Your task to perform on an android device: What is the capital of Spain? Image 0: 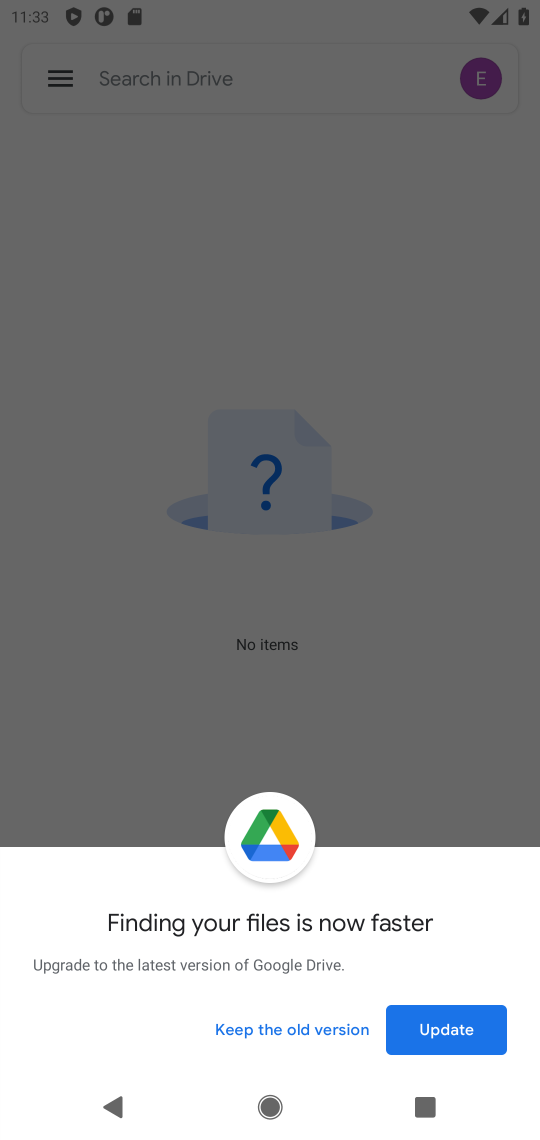
Step 0: press home button
Your task to perform on an android device: What is the capital of Spain? Image 1: 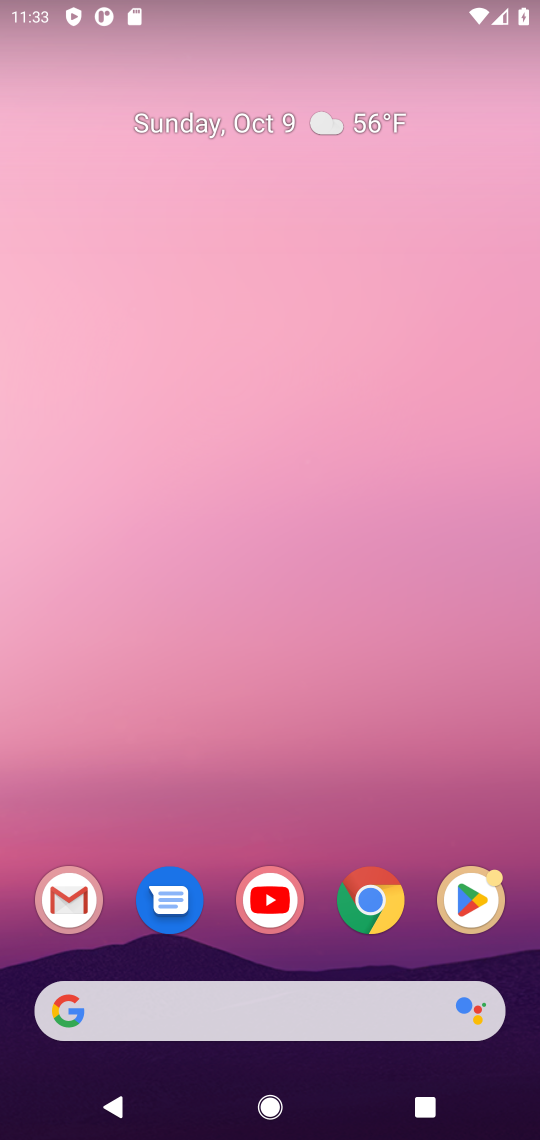
Step 1: click (279, 1008)
Your task to perform on an android device: What is the capital of Spain? Image 2: 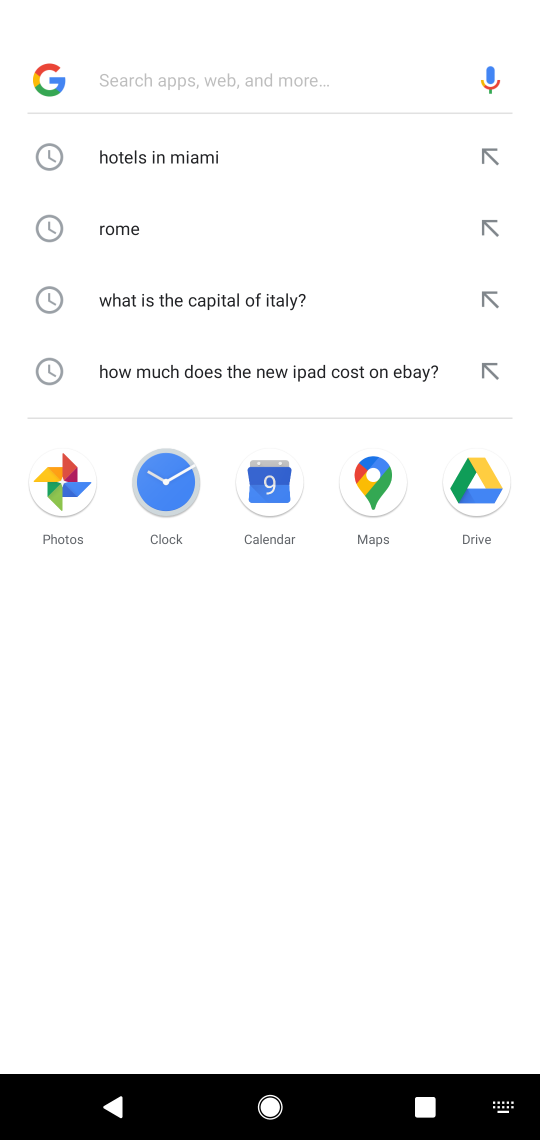
Step 2: type "what is the capital of spain"
Your task to perform on an android device: What is the capital of Spain? Image 3: 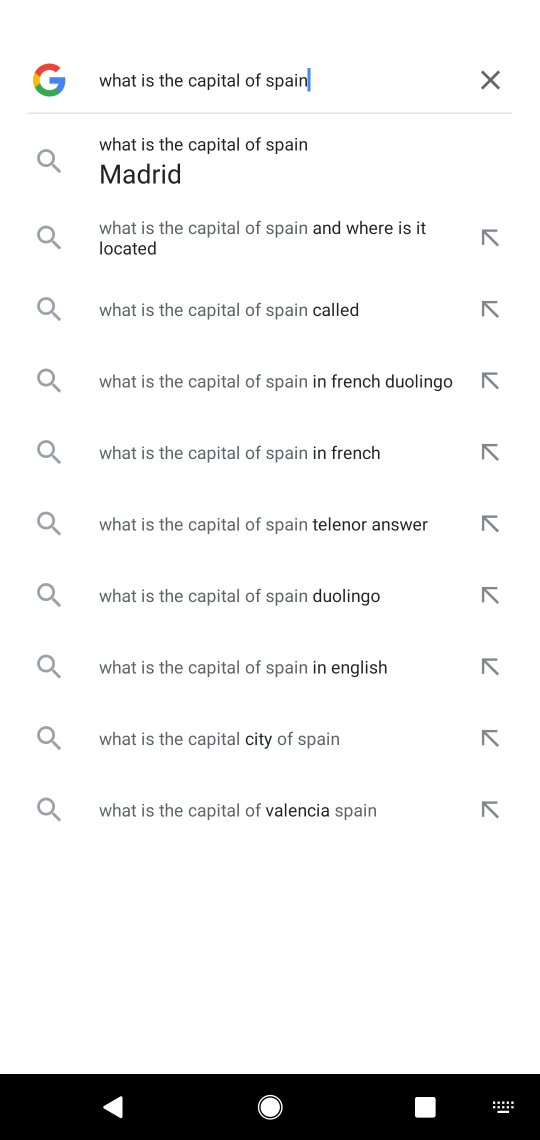
Step 3: type ""
Your task to perform on an android device: What is the capital of Spain? Image 4: 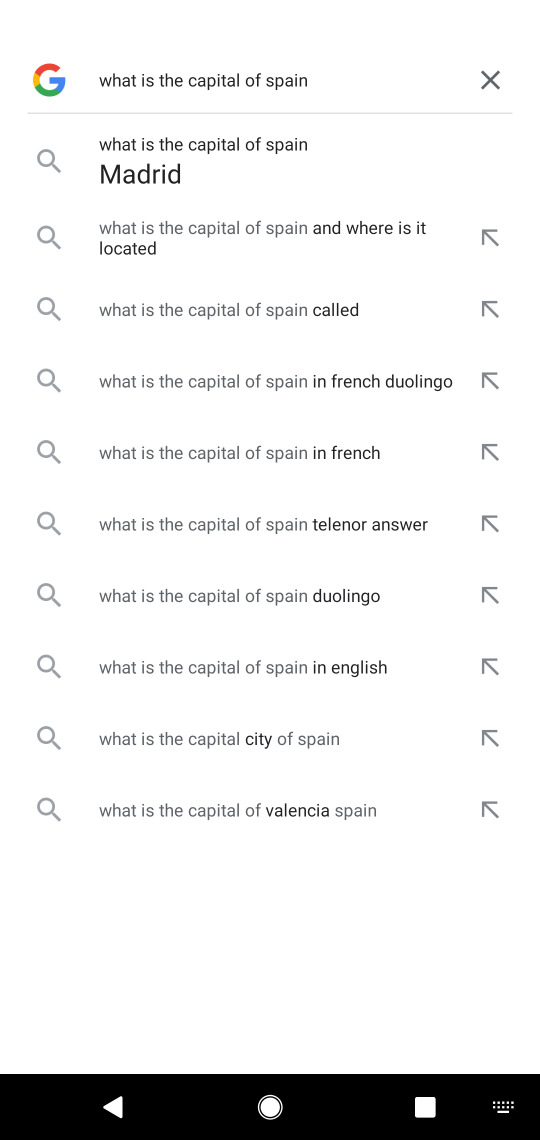
Step 4: click (276, 184)
Your task to perform on an android device: What is the capital of Spain? Image 5: 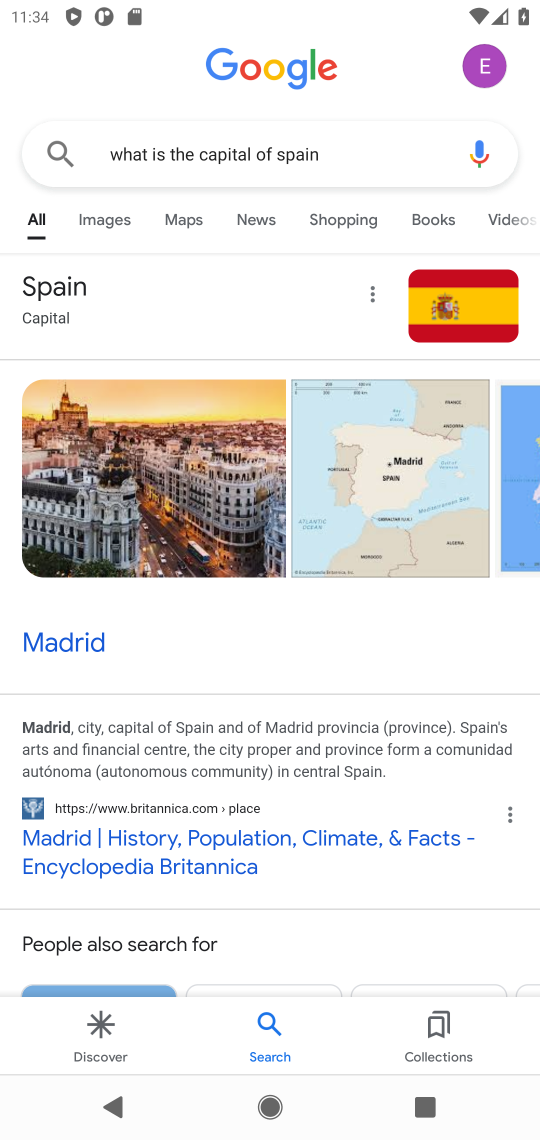
Step 5: drag from (268, 865) to (289, 398)
Your task to perform on an android device: What is the capital of Spain? Image 6: 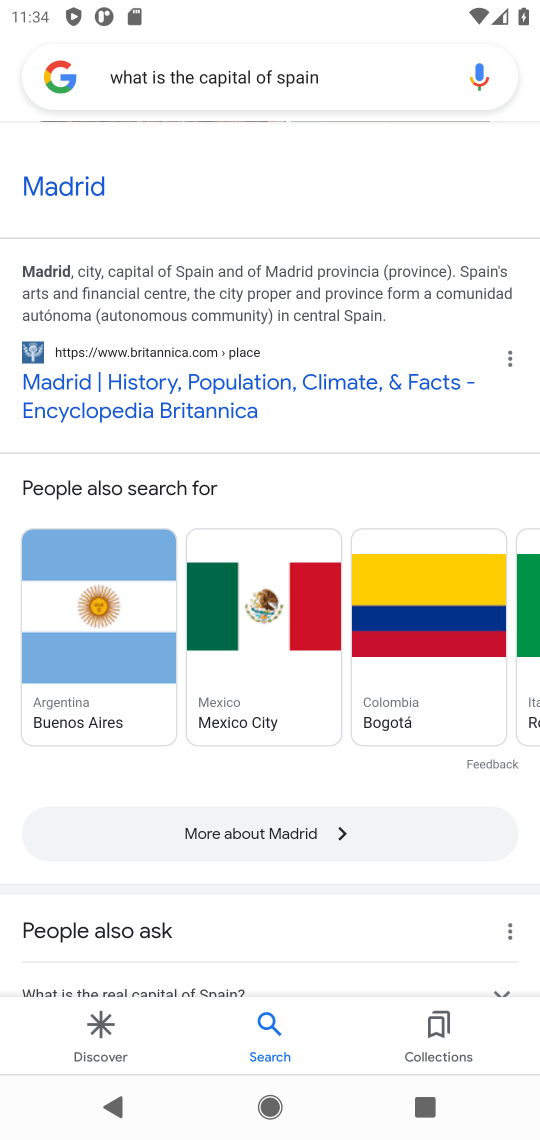
Step 6: click (190, 389)
Your task to perform on an android device: What is the capital of Spain? Image 7: 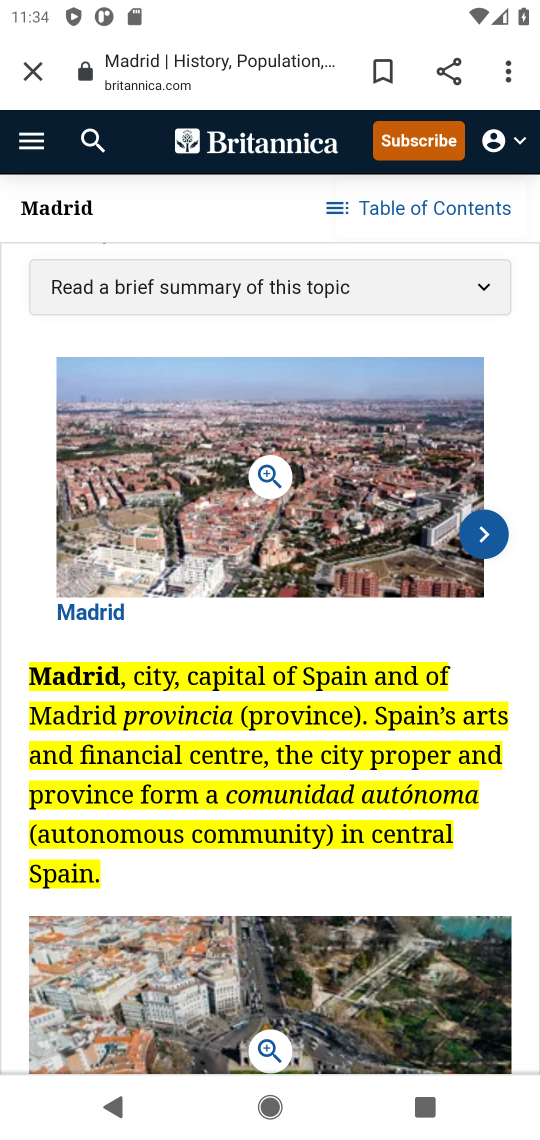
Step 7: drag from (189, 948) to (262, 464)
Your task to perform on an android device: What is the capital of Spain? Image 8: 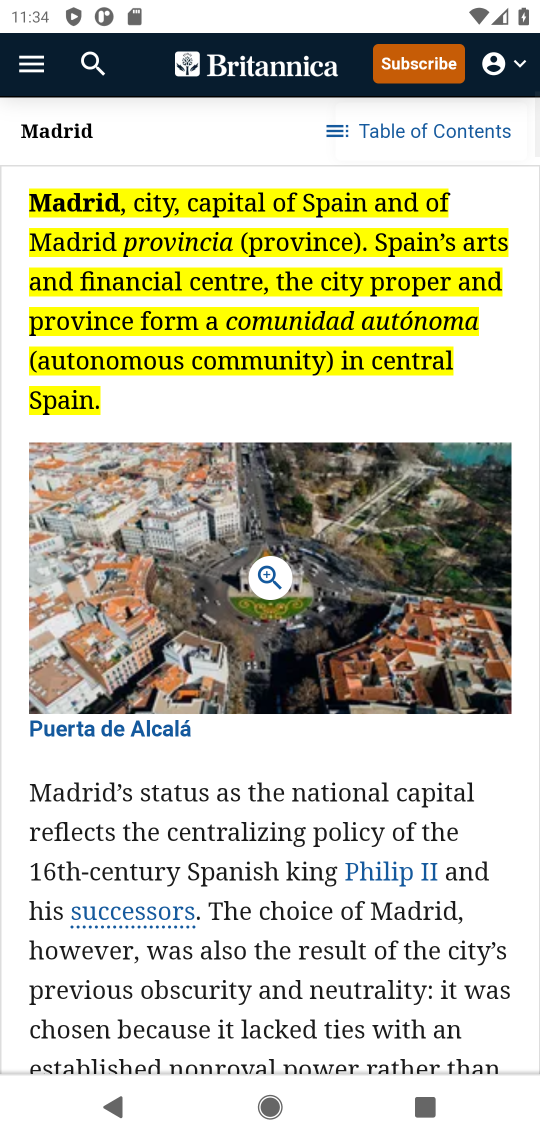
Step 8: drag from (279, 785) to (304, 419)
Your task to perform on an android device: What is the capital of Spain? Image 9: 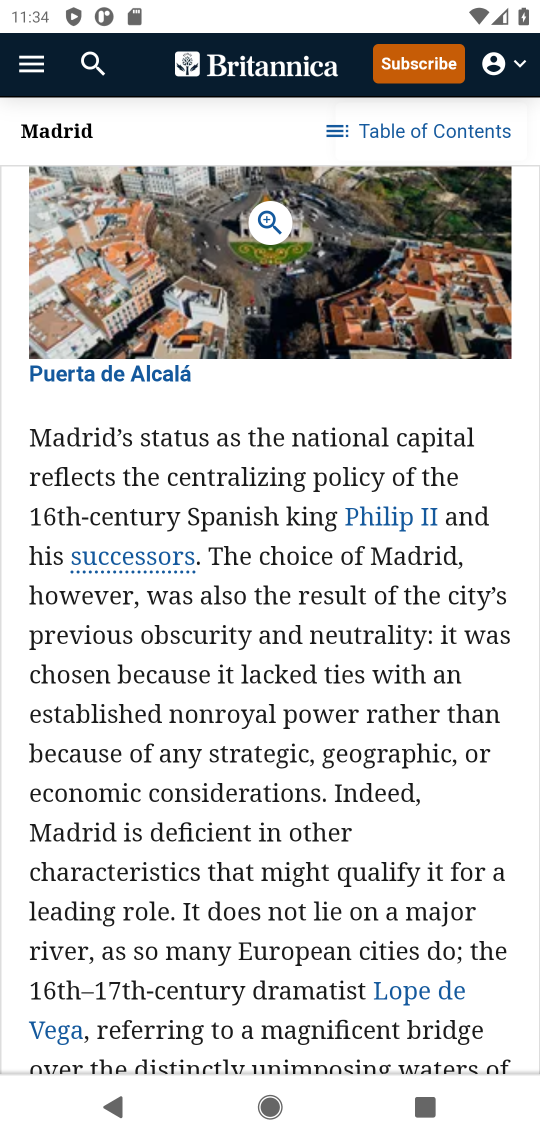
Step 9: drag from (313, 765) to (302, 316)
Your task to perform on an android device: What is the capital of Spain? Image 10: 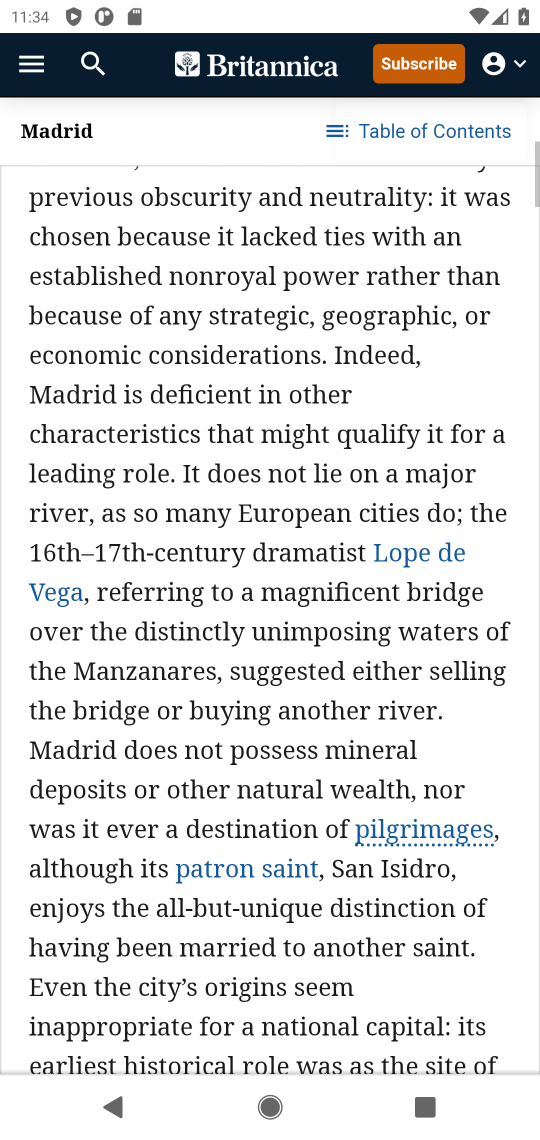
Step 10: drag from (299, 779) to (281, 334)
Your task to perform on an android device: What is the capital of Spain? Image 11: 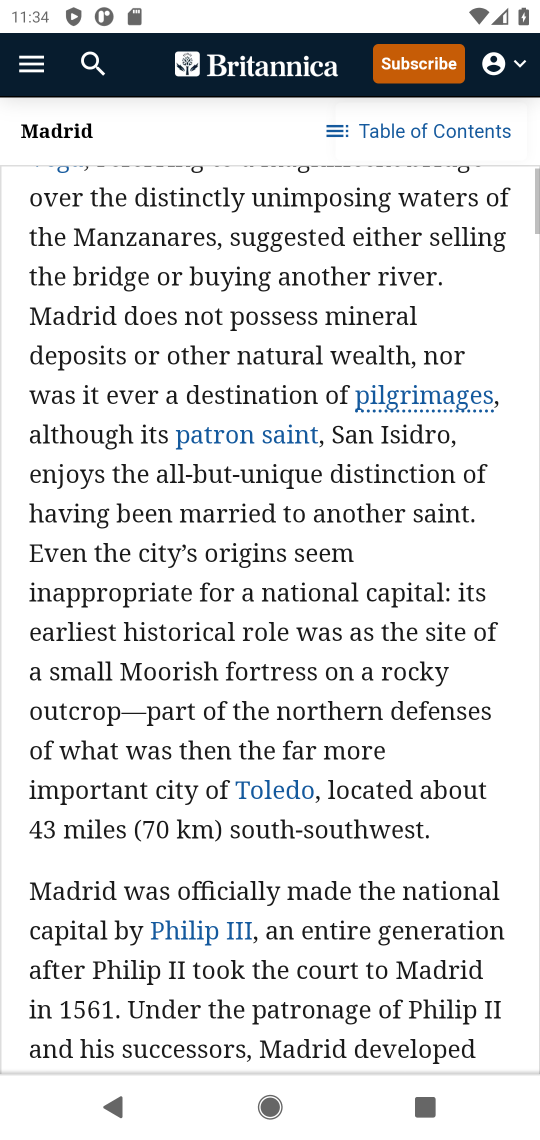
Step 11: drag from (318, 785) to (296, 290)
Your task to perform on an android device: What is the capital of Spain? Image 12: 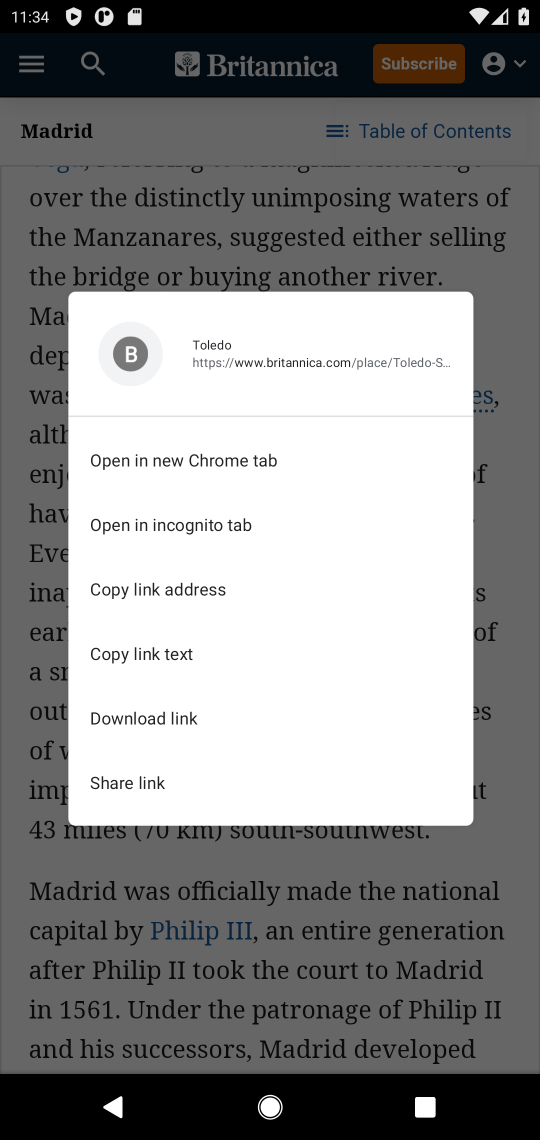
Step 12: drag from (373, 804) to (350, 227)
Your task to perform on an android device: What is the capital of Spain? Image 13: 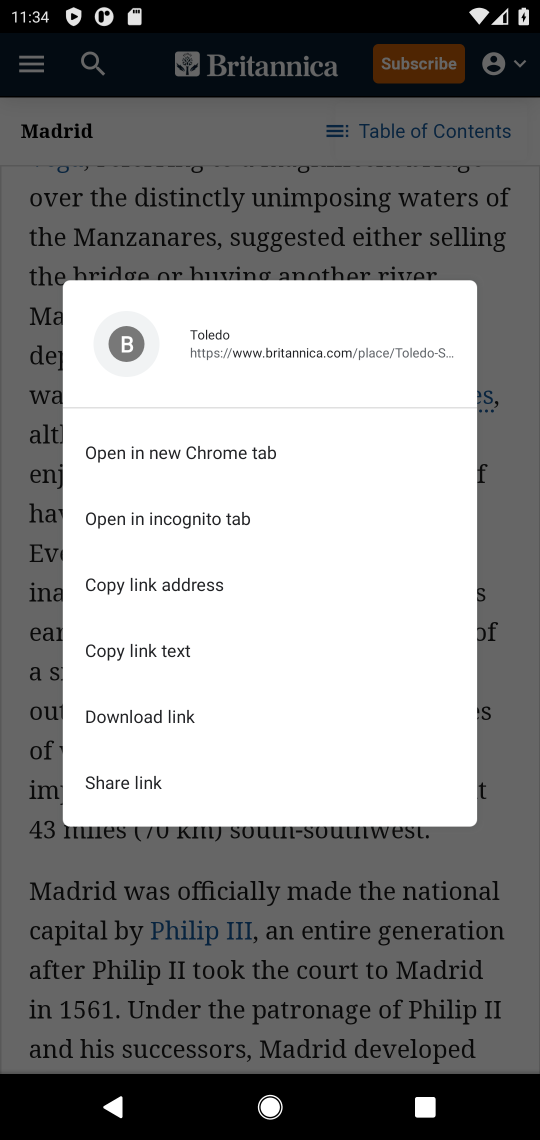
Step 13: click (304, 211)
Your task to perform on an android device: What is the capital of Spain? Image 14: 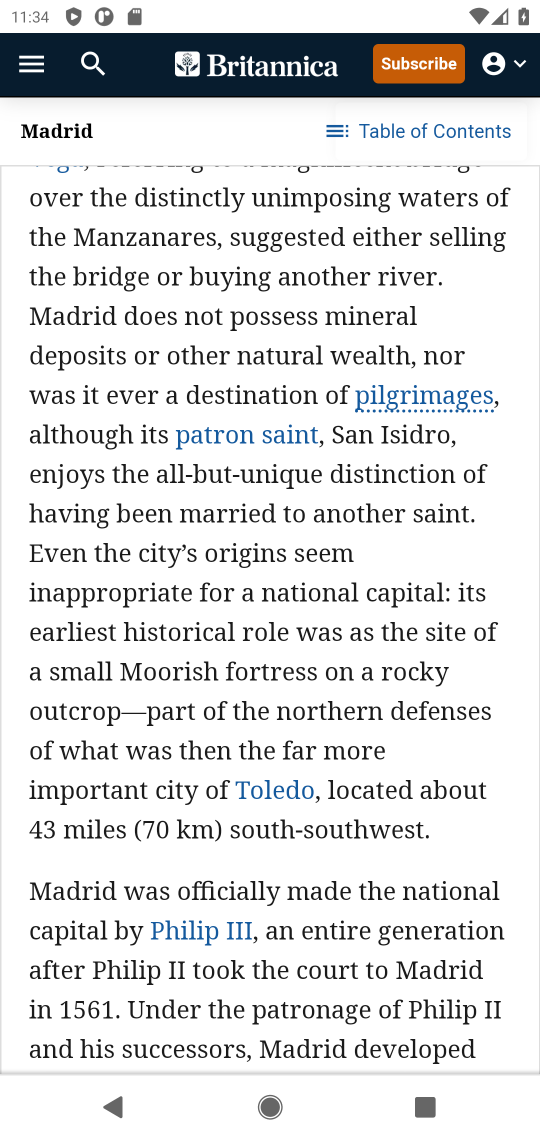
Step 14: drag from (369, 848) to (439, 192)
Your task to perform on an android device: What is the capital of Spain? Image 15: 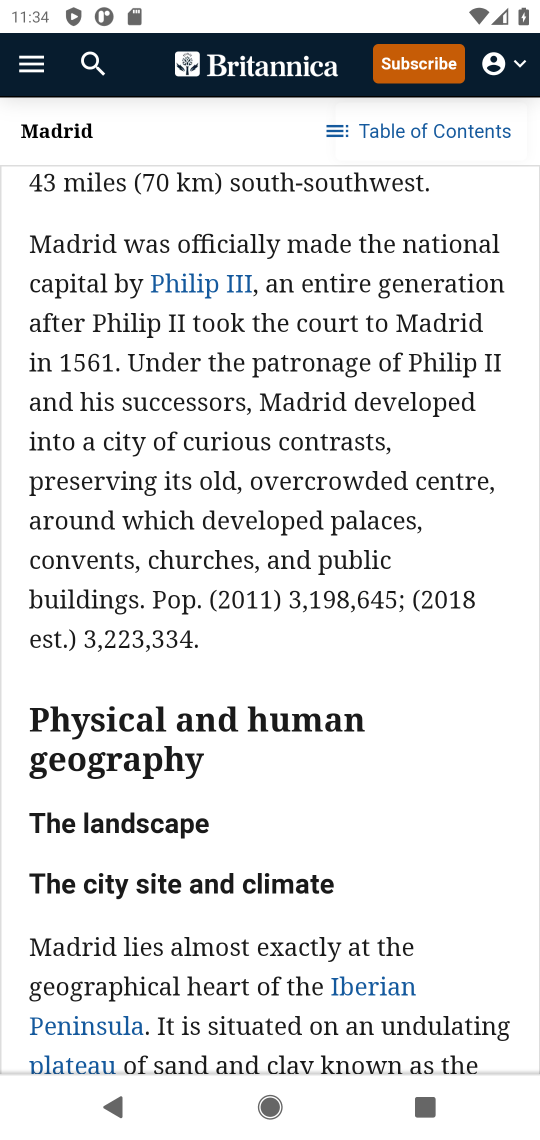
Step 15: drag from (429, 897) to (422, 240)
Your task to perform on an android device: What is the capital of Spain? Image 16: 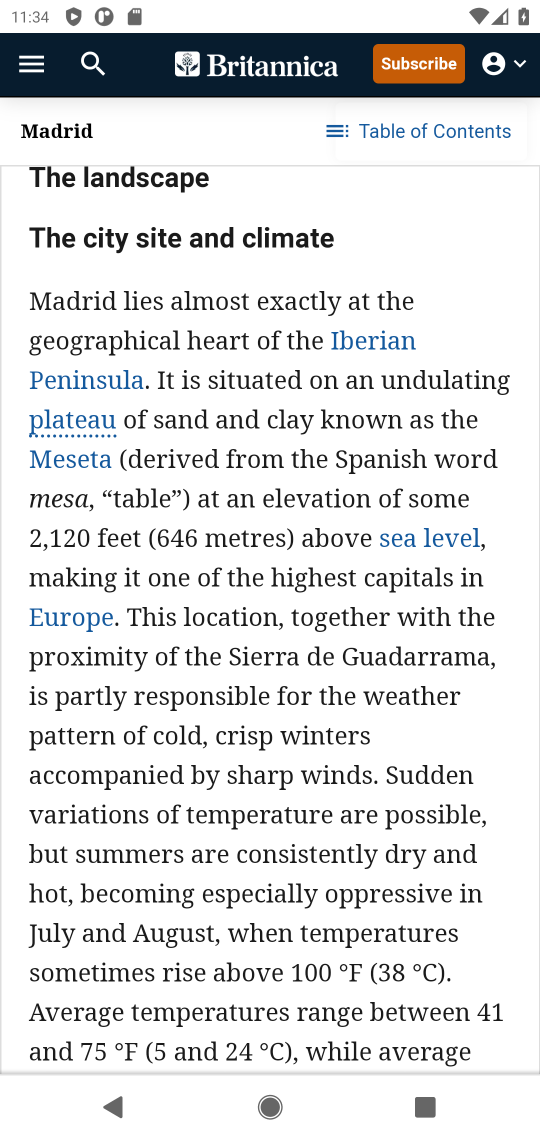
Step 16: drag from (398, 814) to (380, 211)
Your task to perform on an android device: What is the capital of Spain? Image 17: 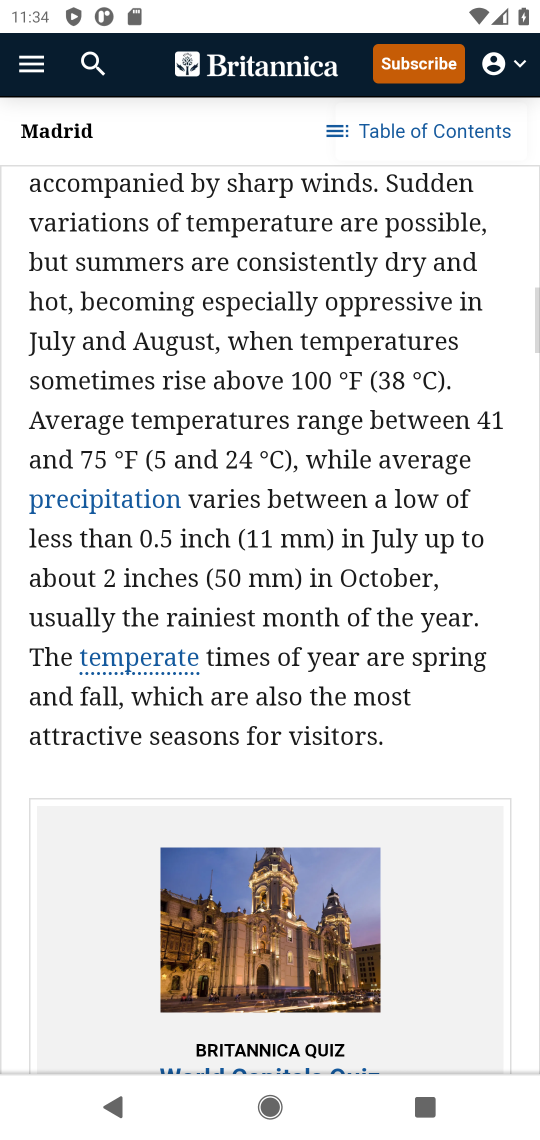
Step 17: drag from (439, 874) to (468, 251)
Your task to perform on an android device: What is the capital of Spain? Image 18: 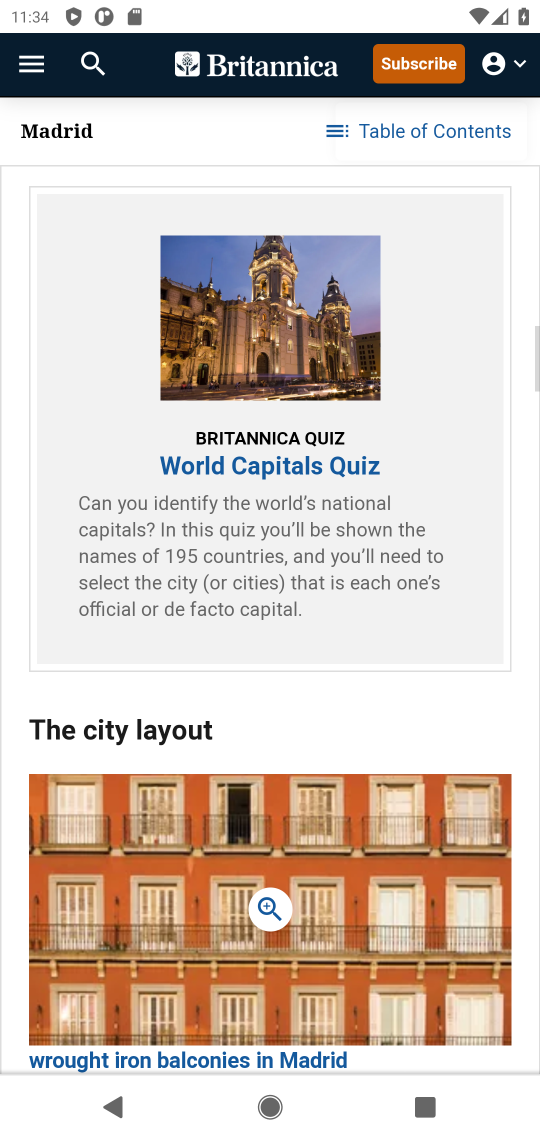
Step 18: drag from (445, 630) to (462, 272)
Your task to perform on an android device: What is the capital of Spain? Image 19: 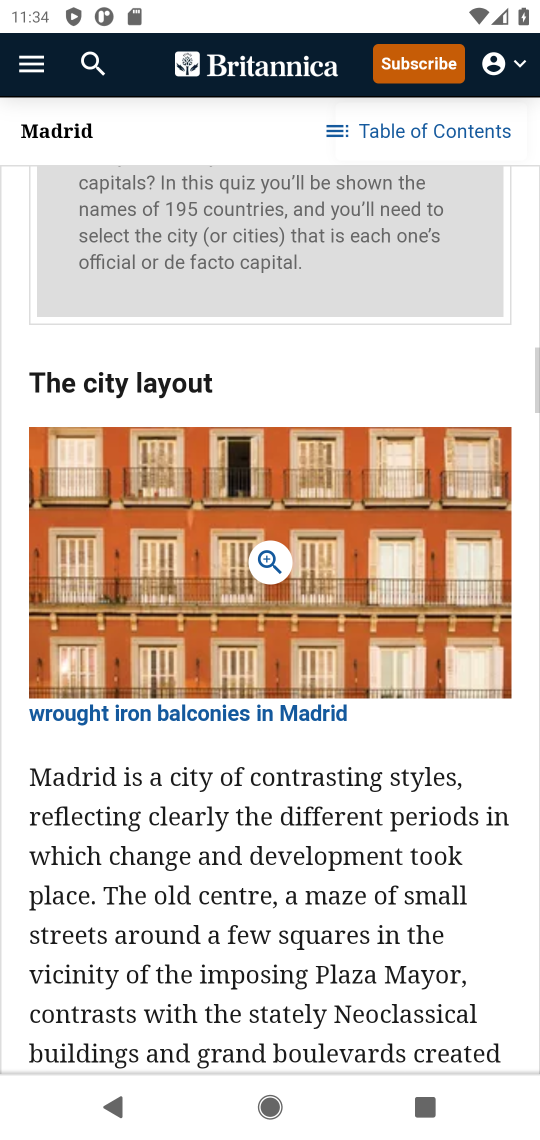
Step 19: drag from (430, 916) to (393, 293)
Your task to perform on an android device: What is the capital of Spain? Image 20: 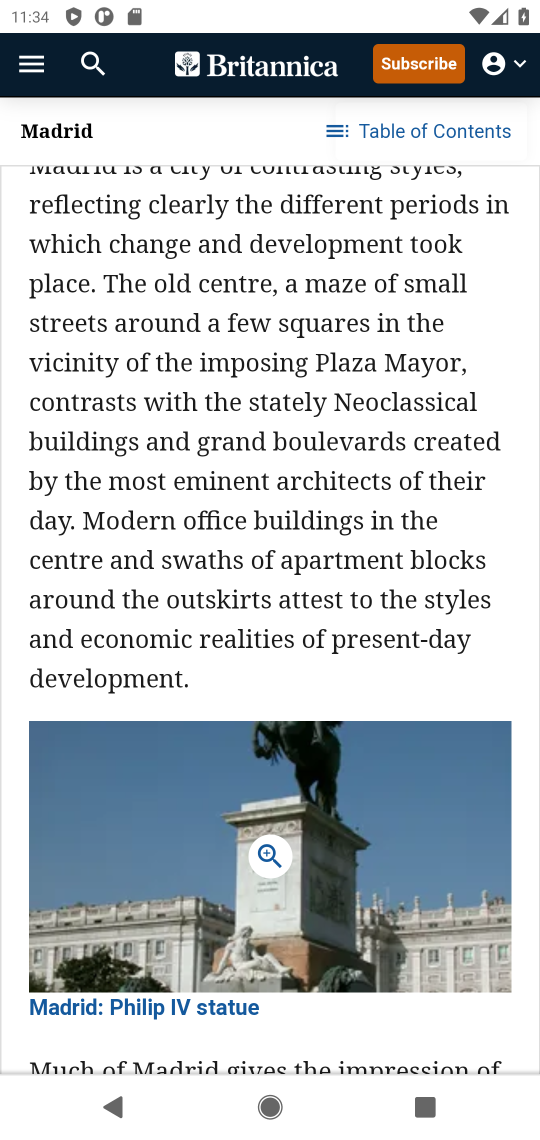
Step 20: drag from (340, 680) to (372, 298)
Your task to perform on an android device: What is the capital of Spain? Image 21: 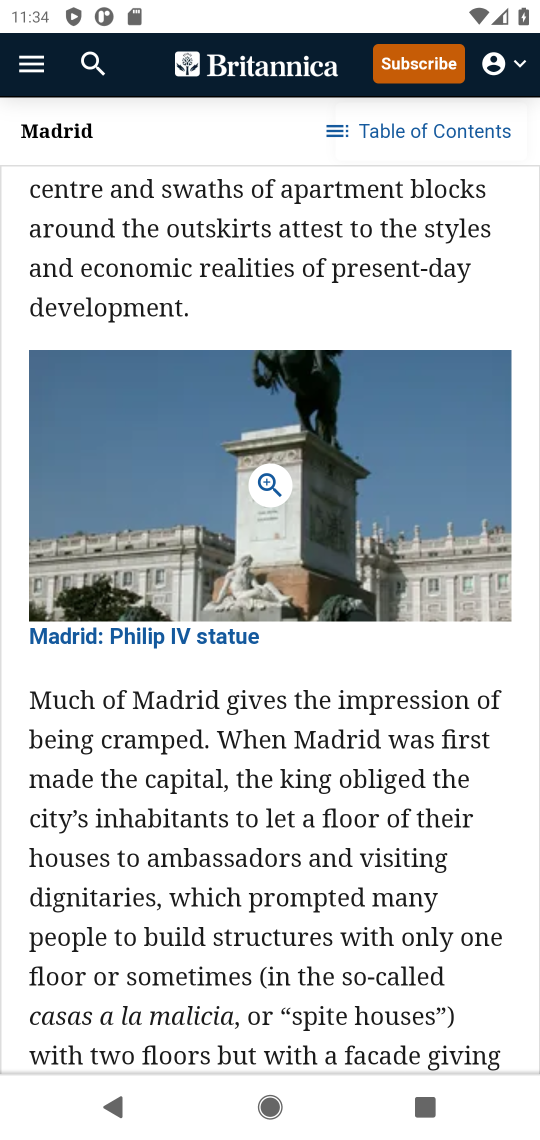
Step 21: drag from (453, 948) to (487, 375)
Your task to perform on an android device: What is the capital of Spain? Image 22: 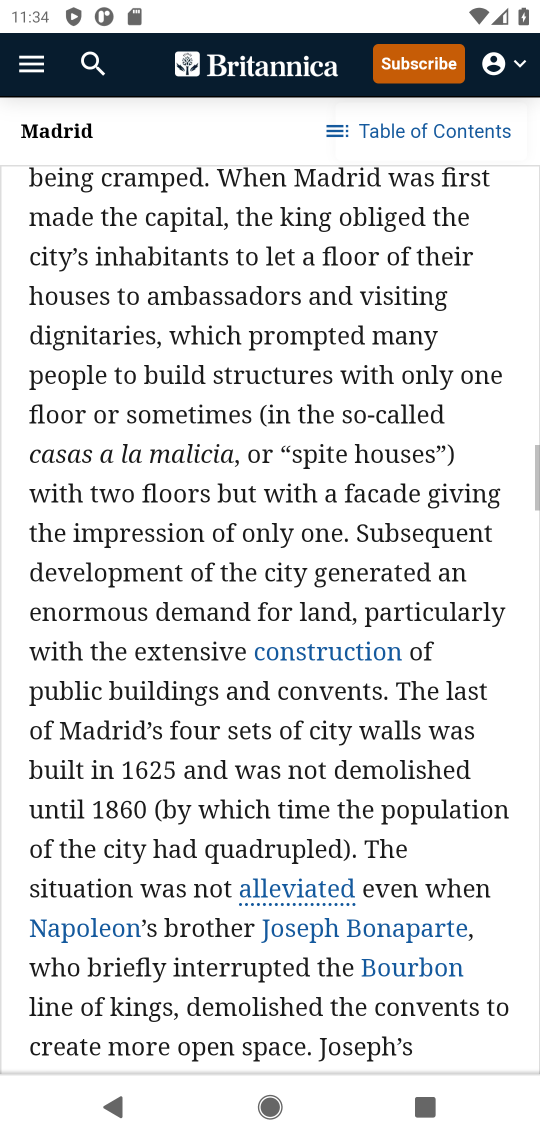
Step 22: drag from (418, 804) to (479, 383)
Your task to perform on an android device: What is the capital of Spain? Image 23: 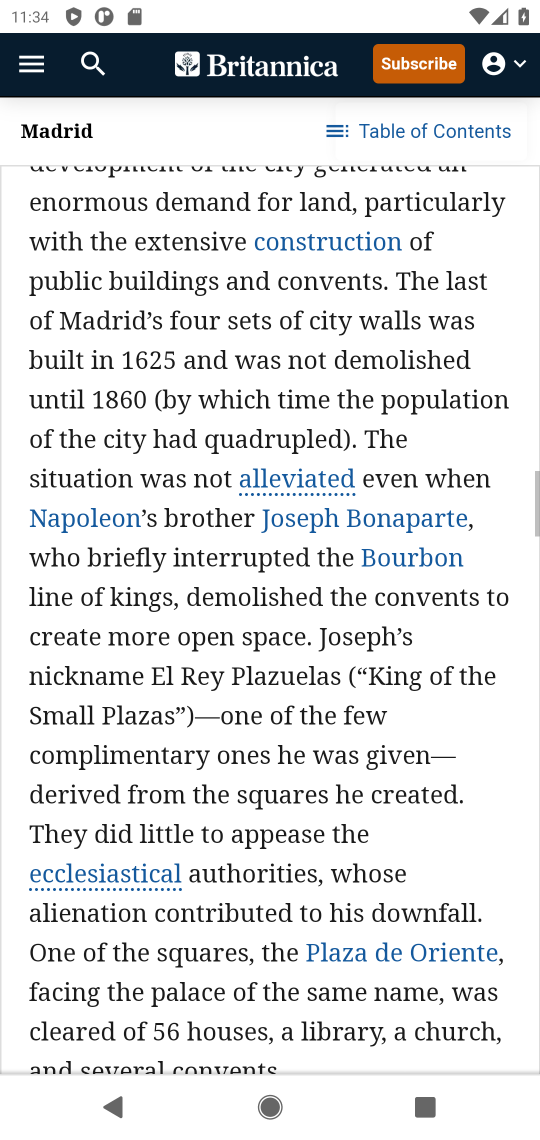
Step 23: drag from (430, 778) to (438, 441)
Your task to perform on an android device: What is the capital of Spain? Image 24: 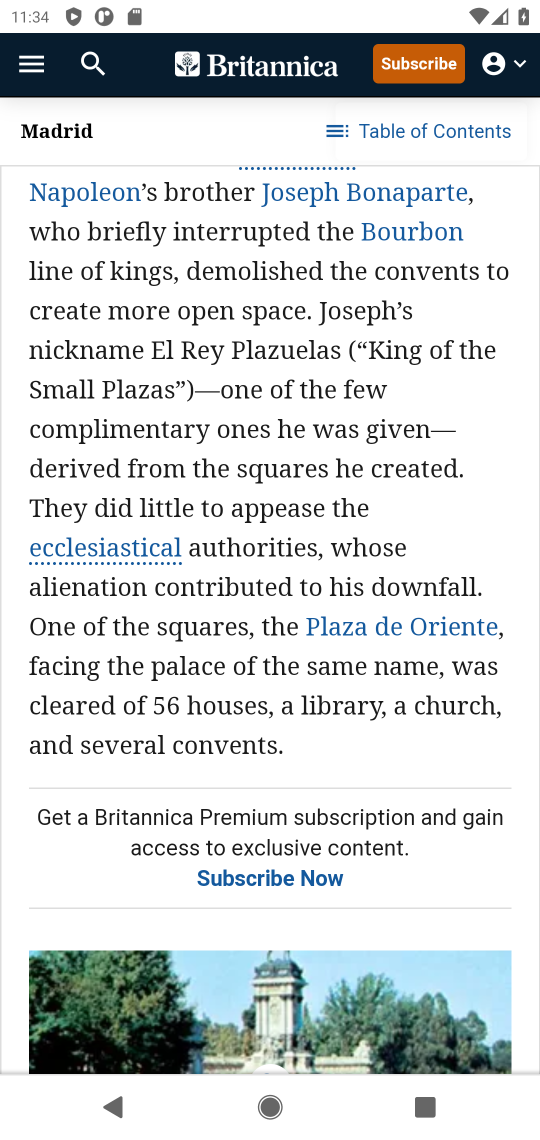
Step 24: drag from (323, 692) to (465, 197)
Your task to perform on an android device: What is the capital of Spain? Image 25: 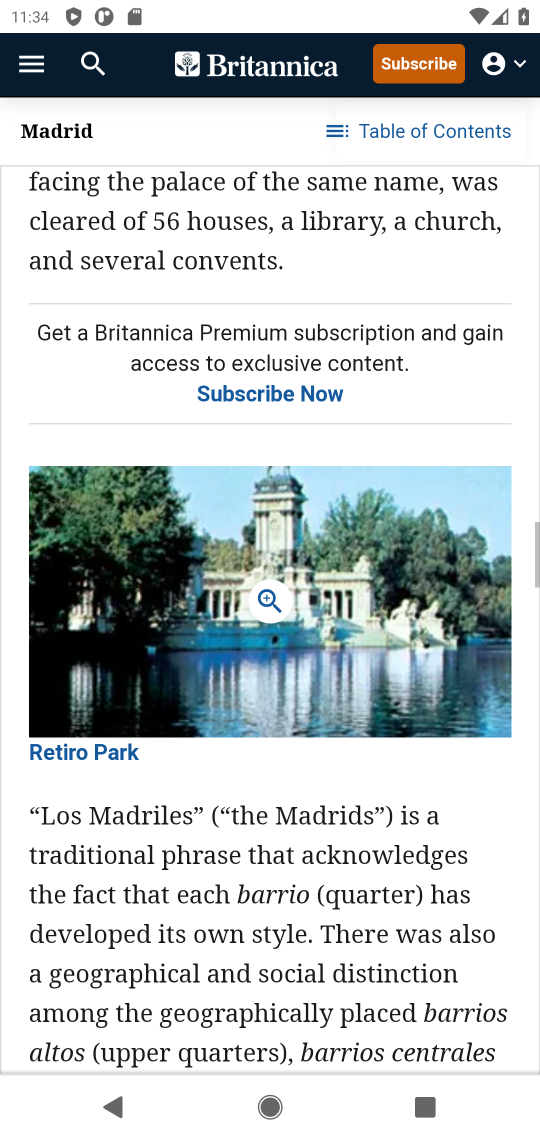
Step 25: drag from (322, 622) to (360, 326)
Your task to perform on an android device: What is the capital of Spain? Image 26: 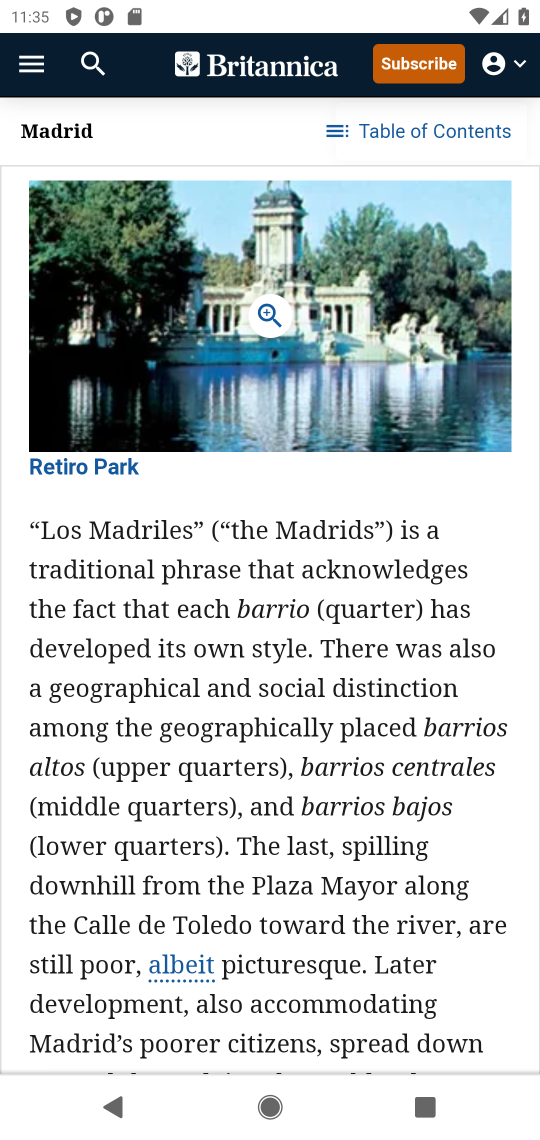
Step 26: drag from (197, 731) to (332, 403)
Your task to perform on an android device: What is the capital of Spain? Image 27: 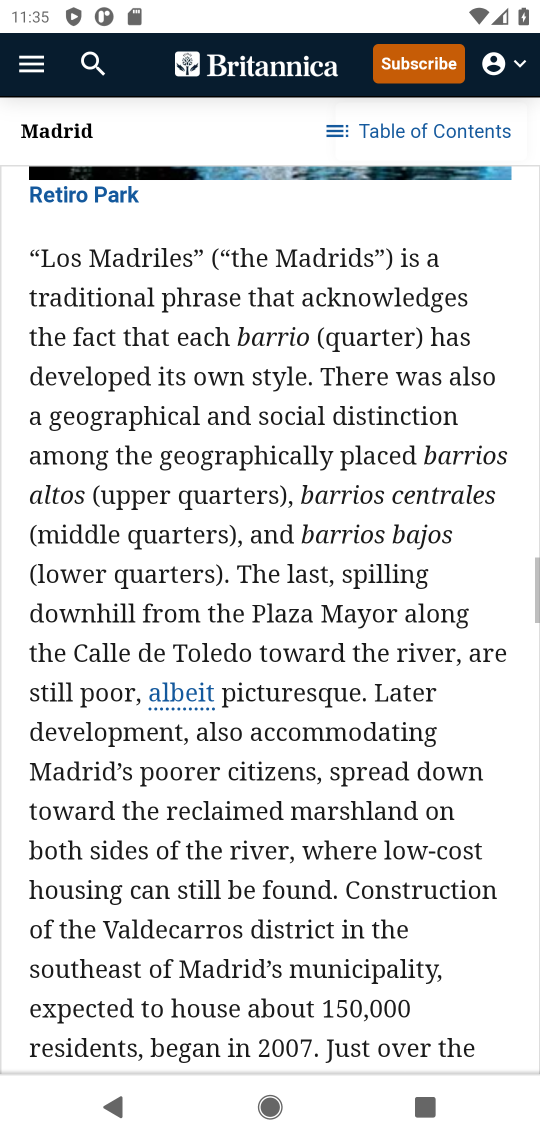
Step 27: drag from (298, 802) to (348, 376)
Your task to perform on an android device: What is the capital of Spain? Image 28: 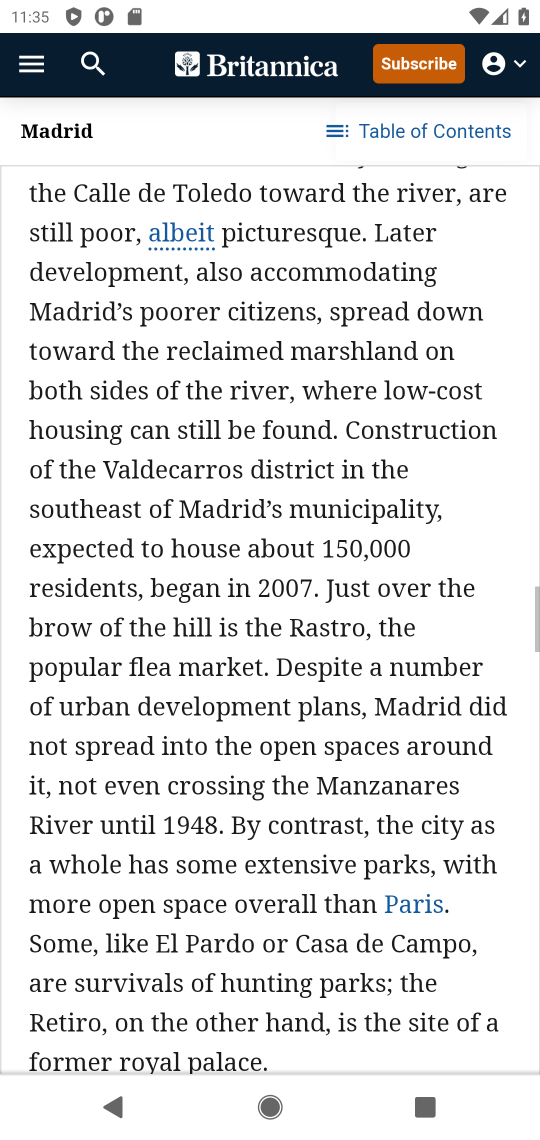
Step 28: drag from (344, 673) to (363, 408)
Your task to perform on an android device: What is the capital of Spain? Image 29: 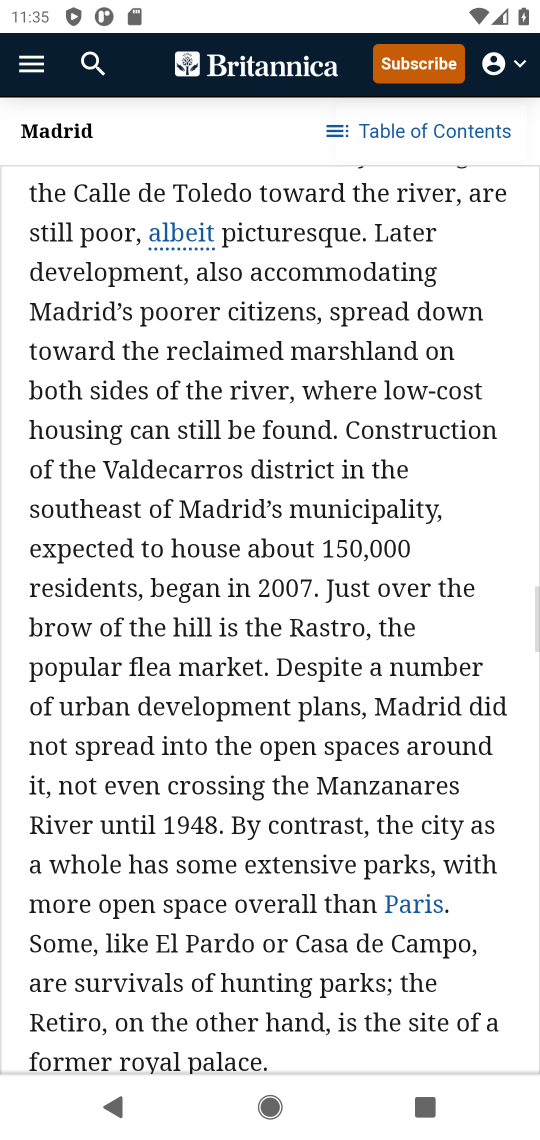
Step 29: drag from (307, 750) to (312, 593)
Your task to perform on an android device: What is the capital of Spain? Image 30: 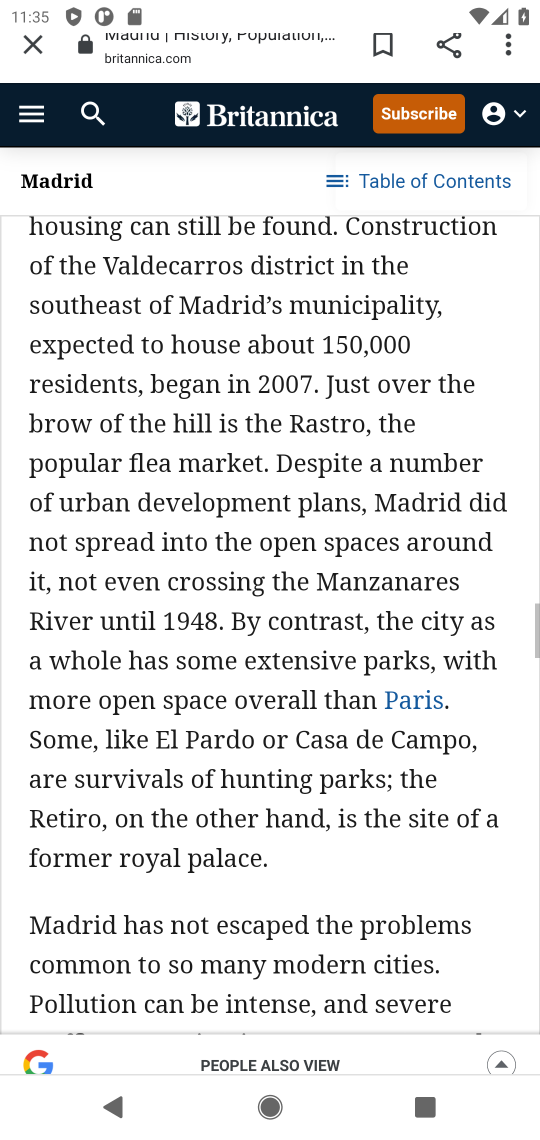
Step 30: drag from (298, 882) to (335, 551)
Your task to perform on an android device: What is the capital of Spain? Image 31: 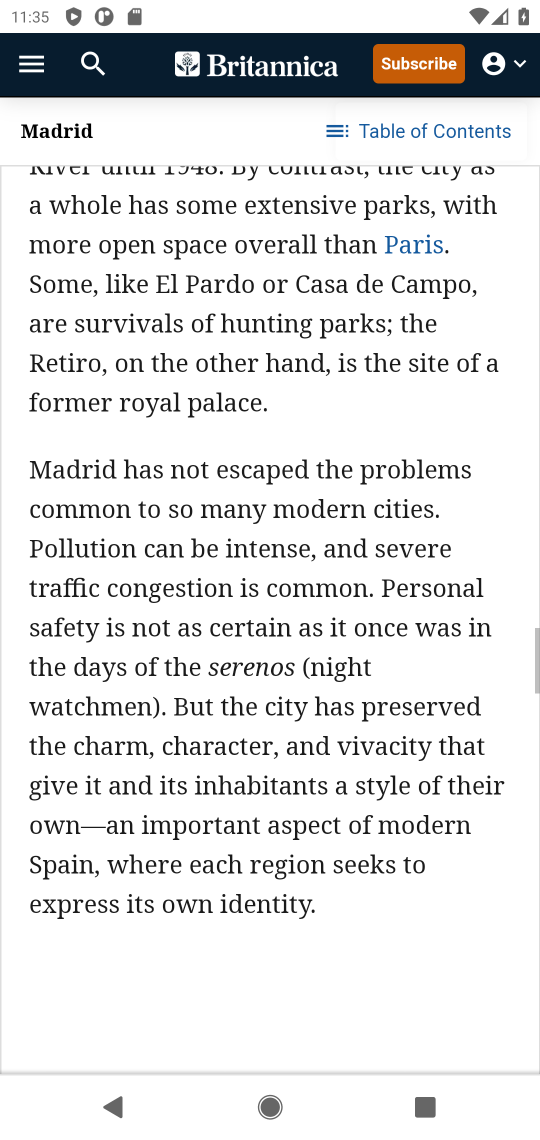
Step 31: drag from (375, 822) to (406, 262)
Your task to perform on an android device: What is the capital of Spain? Image 32: 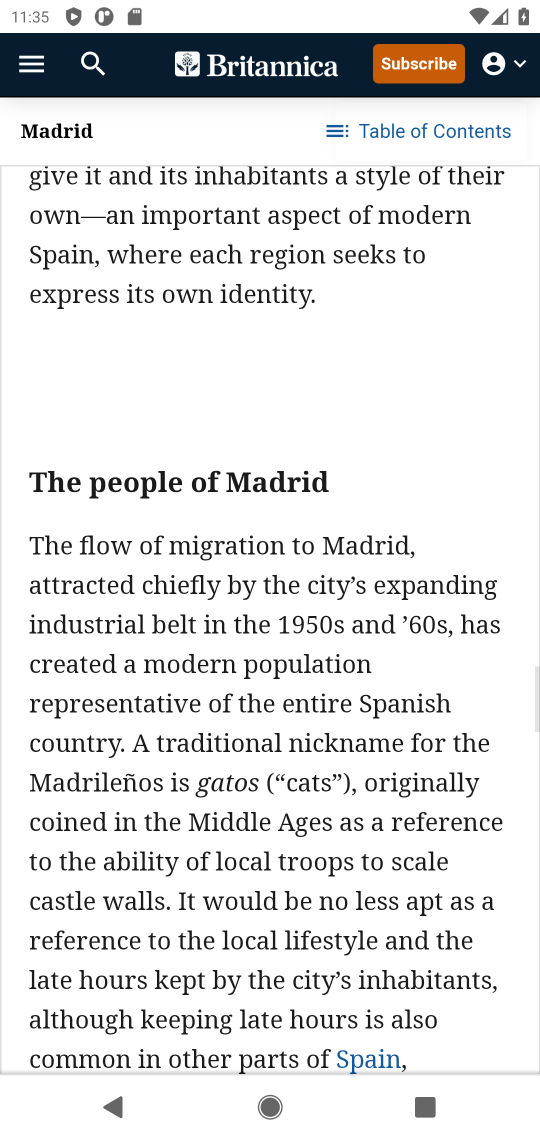
Step 32: drag from (363, 942) to (465, 190)
Your task to perform on an android device: What is the capital of Spain? Image 33: 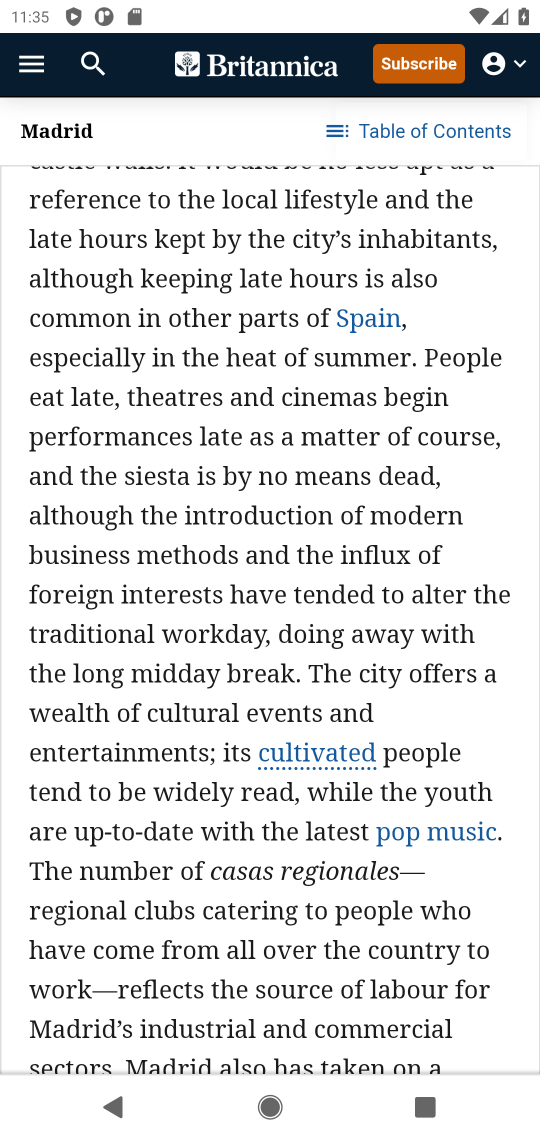
Step 33: drag from (373, 886) to (461, 182)
Your task to perform on an android device: What is the capital of Spain? Image 34: 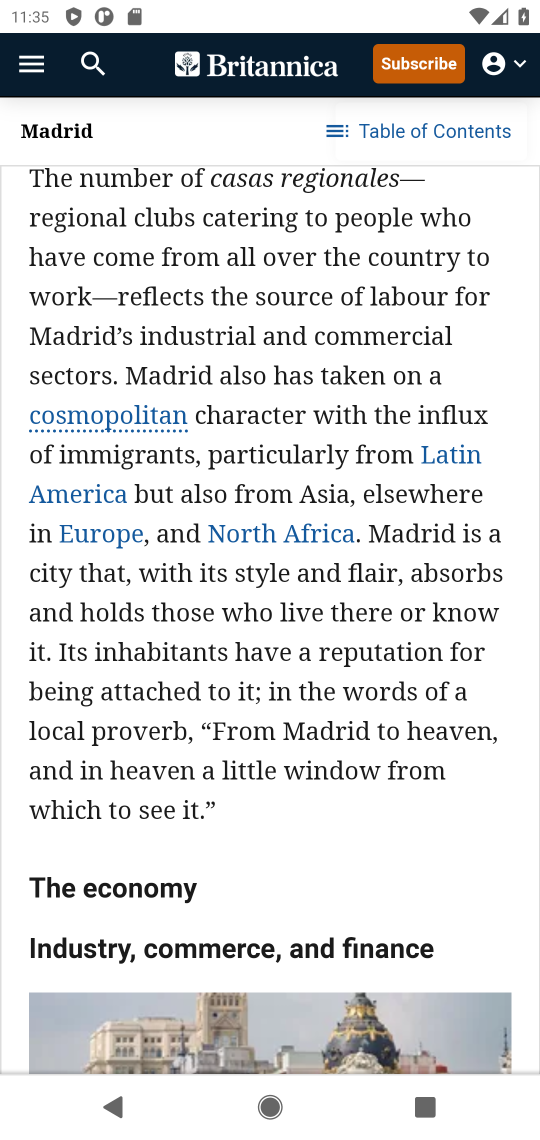
Step 34: drag from (331, 878) to (404, 228)
Your task to perform on an android device: What is the capital of Spain? Image 35: 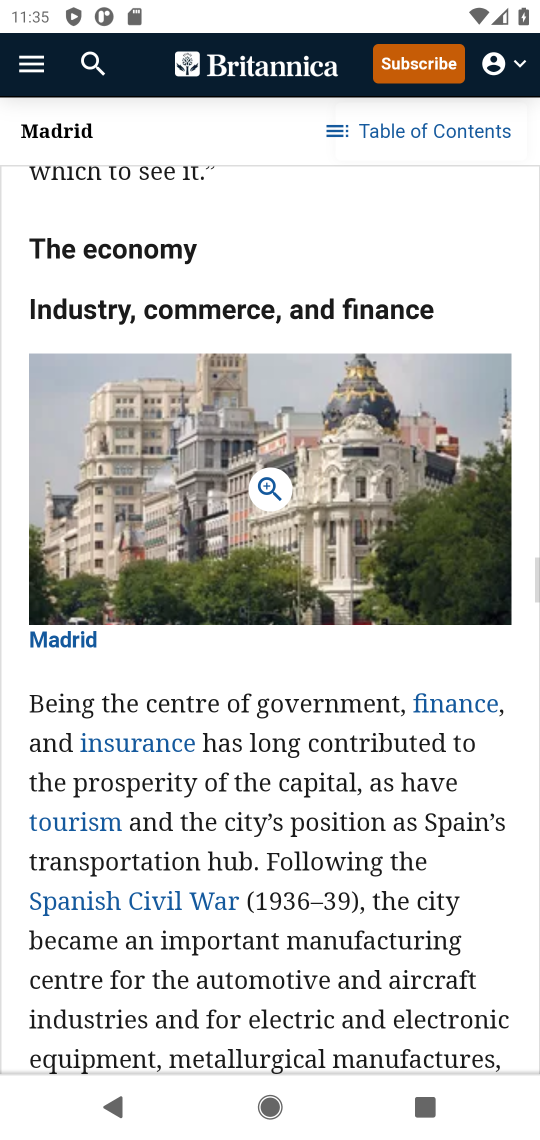
Step 35: drag from (368, 982) to (418, 319)
Your task to perform on an android device: What is the capital of Spain? Image 36: 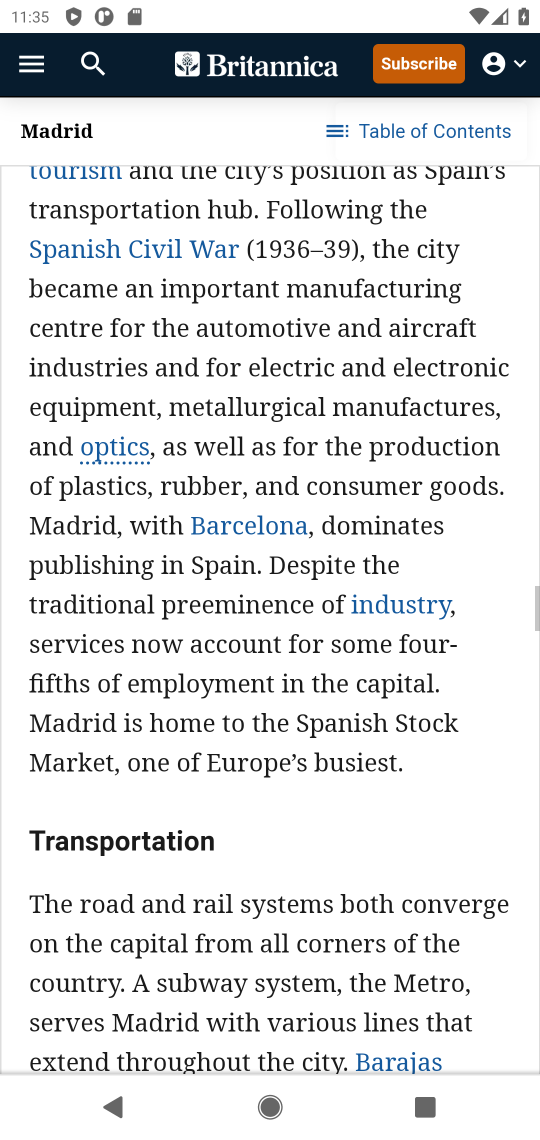
Step 36: drag from (391, 844) to (404, 269)
Your task to perform on an android device: What is the capital of Spain? Image 37: 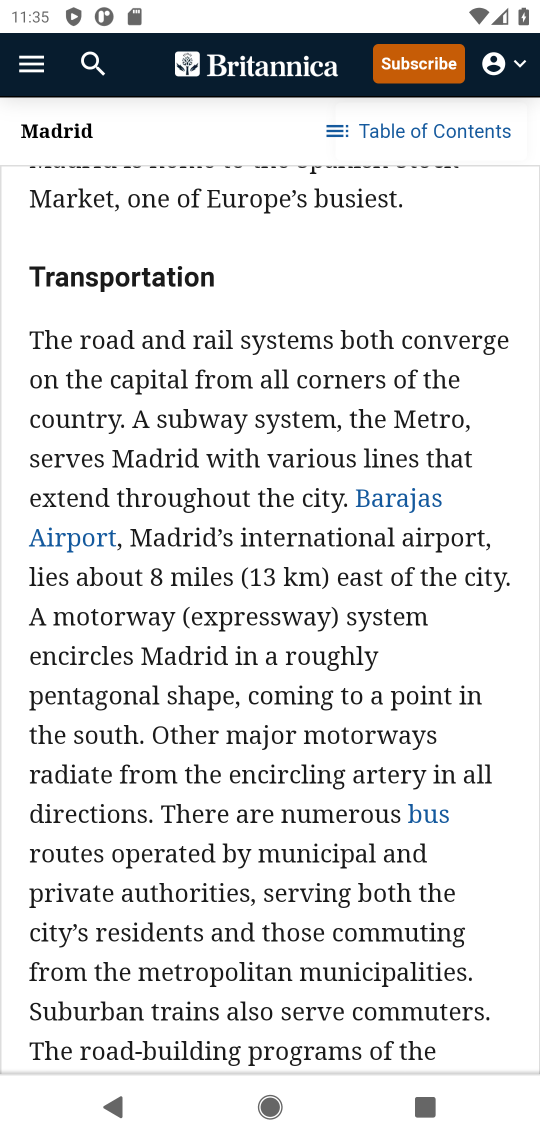
Step 37: drag from (395, 970) to (444, 296)
Your task to perform on an android device: What is the capital of Spain? Image 38: 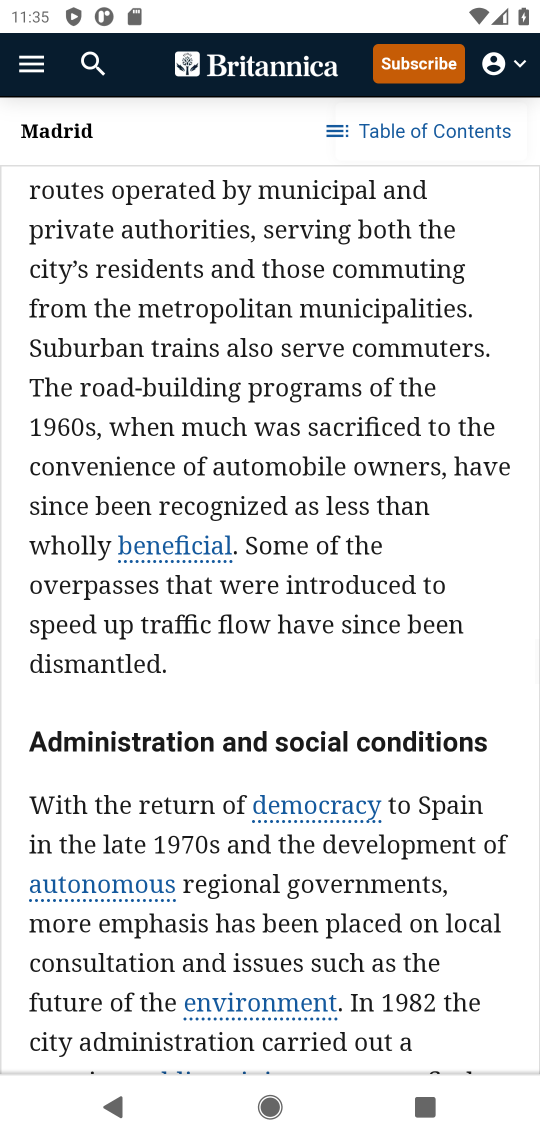
Step 38: drag from (453, 717) to (451, 503)
Your task to perform on an android device: What is the capital of Spain? Image 39: 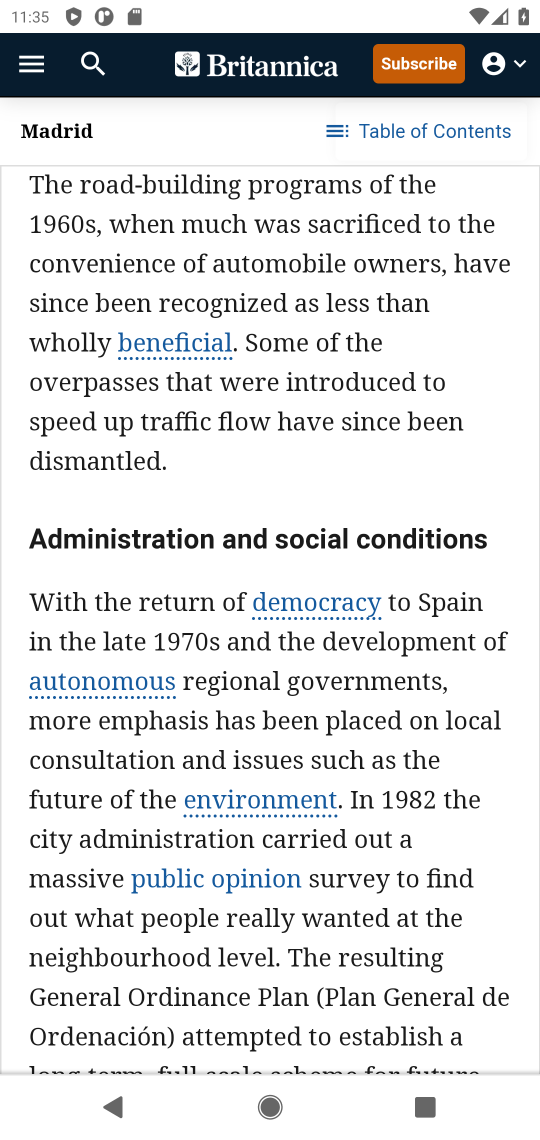
Step 39: press back button
Your task to perform on an android device: What is the capital of Spain? Image 40: 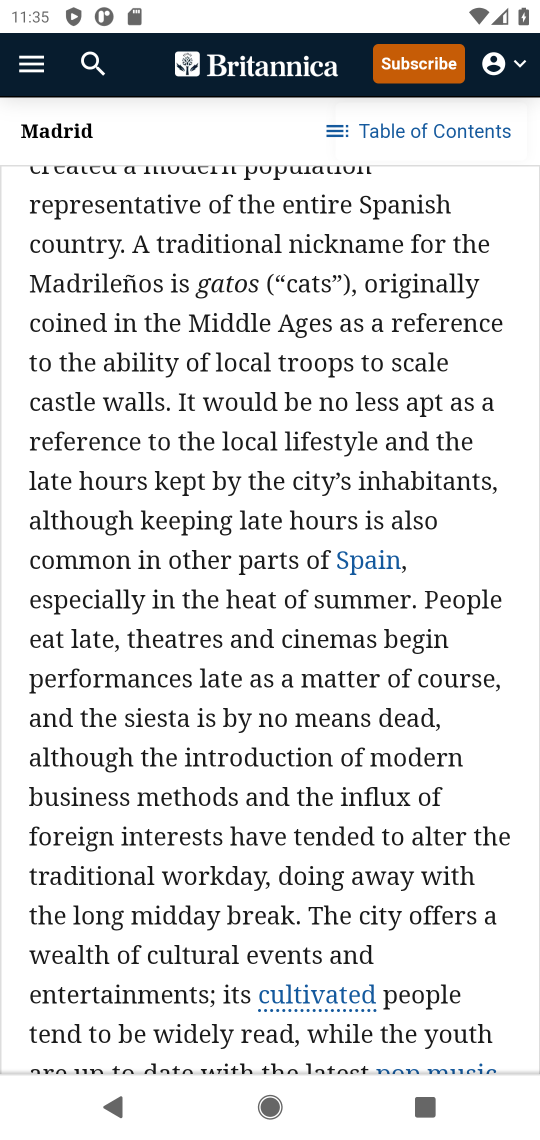
Step 40: press back button
Your task to perform on an android device: What is the capital of Spain? Image 41: 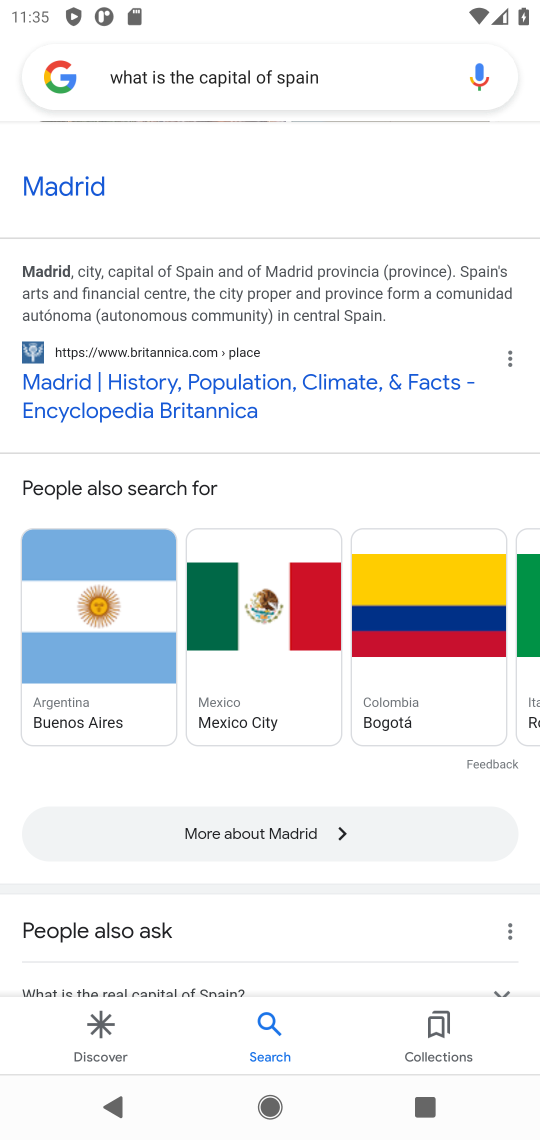
Step 41: click (243, 403)
Your task to perform on an android device: What is the capital of Spain? Image 42: 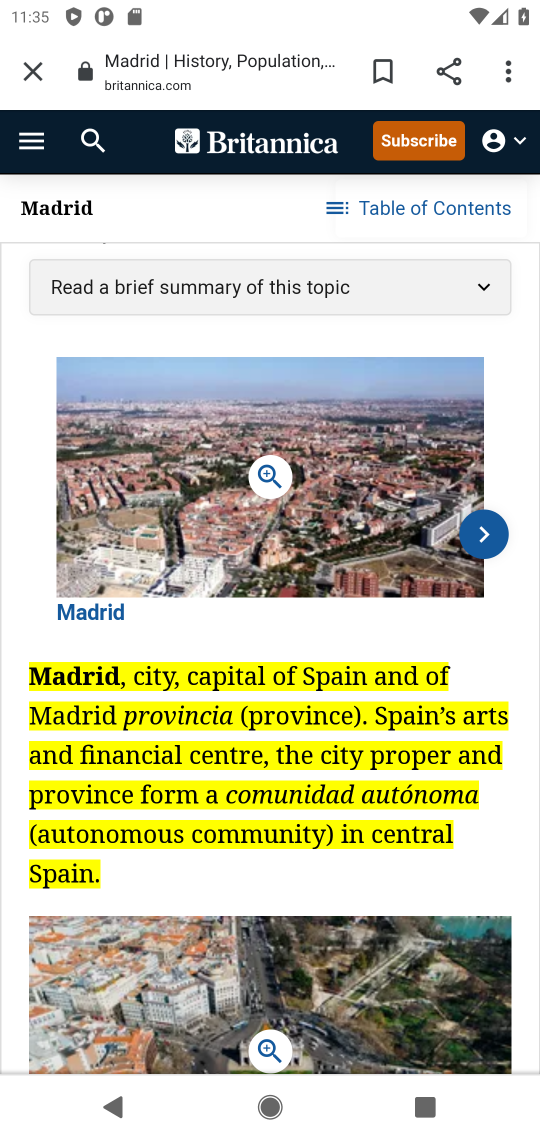
Step 42: task complete